Your task to perform on an android device: Open battery settings Image 0: 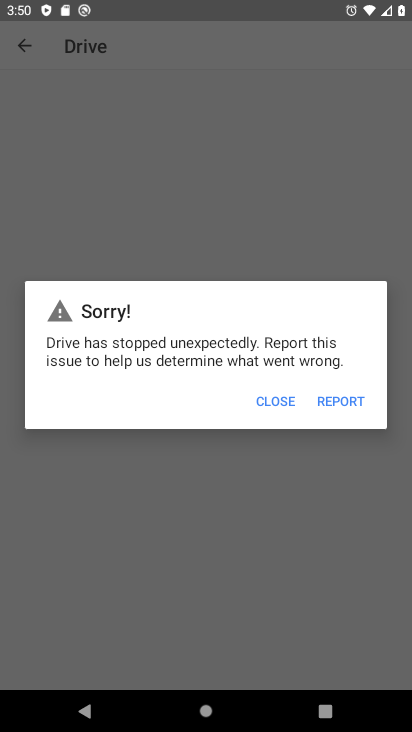
Step 0: drag from (218, 725) to (237, 209)
Your task to perform on an android device: Open battery settings Image 1: 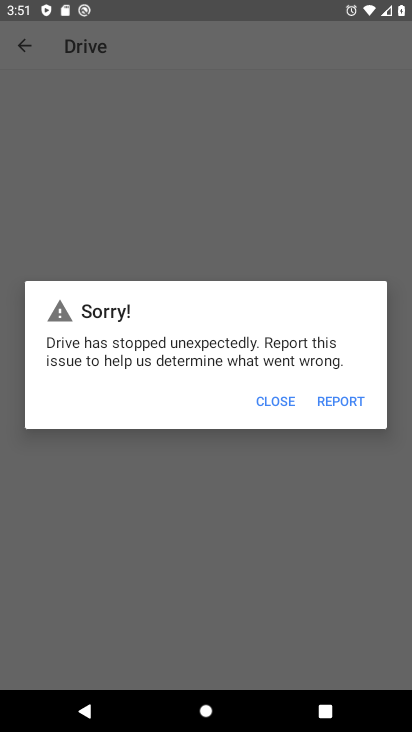
Step 1: press home button
Your task to perform on an android device: Open battery settings Image 2: 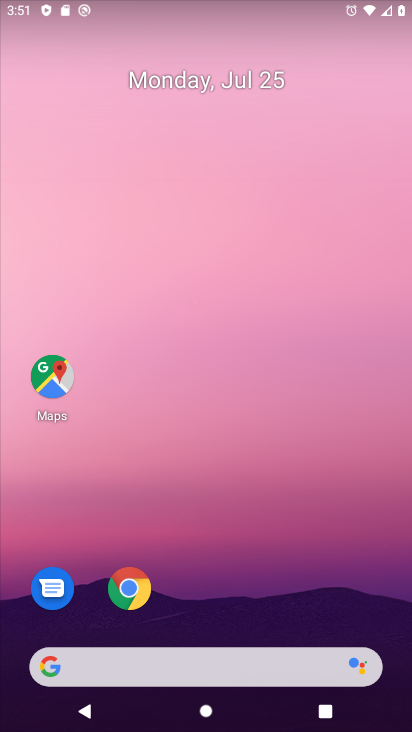
Step 2: drag from (233, 724) to (217, 161)
Your task to perform on an android device: Open battery settings Image 3: 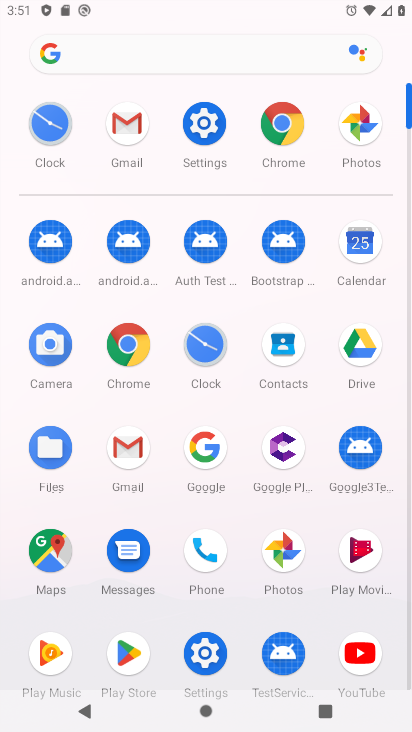
Step 3: click (204, 118)
Your task to perform on an android device: Open battery settings Image 4: 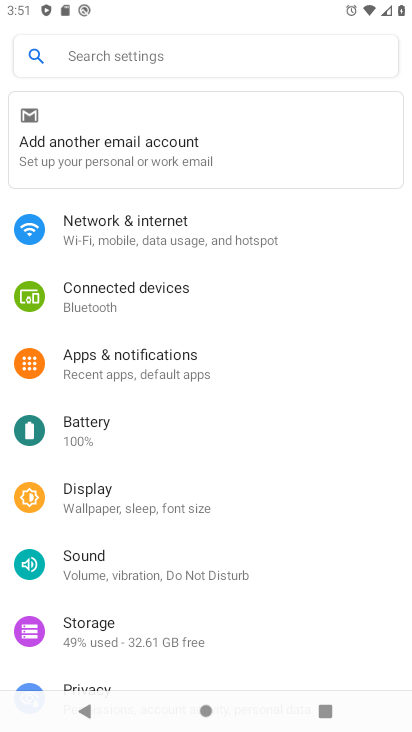
Step 4: click (78, 424)
Your task to perform on an android device: Open battery settings Image 5: 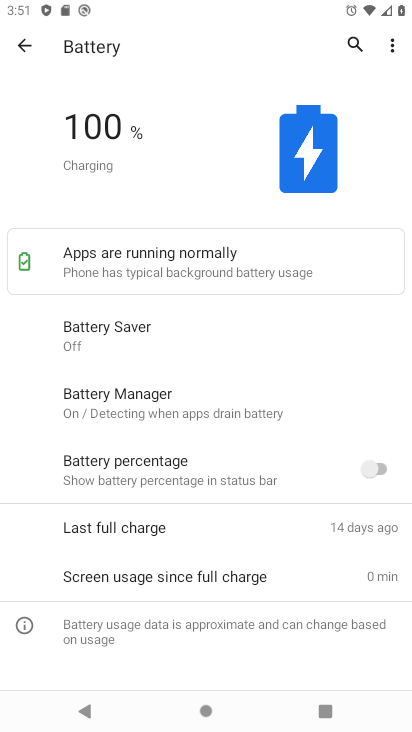
Step 5: task complete